Your task to perform on an android device: turn on wifi Image 0: 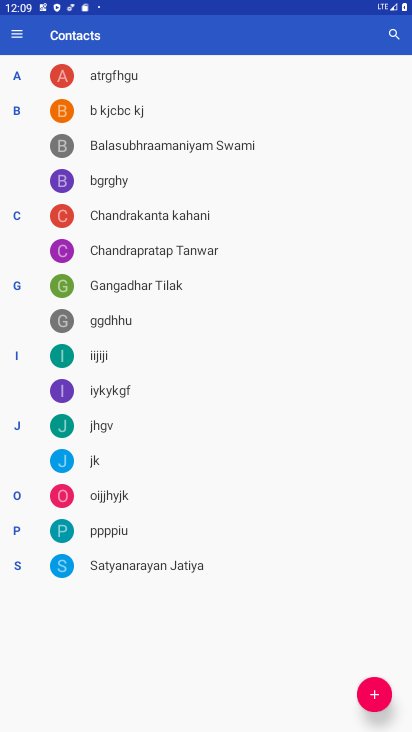
Step 0: press home button
Your task to perform on an android device: turn on wifi Image 1: 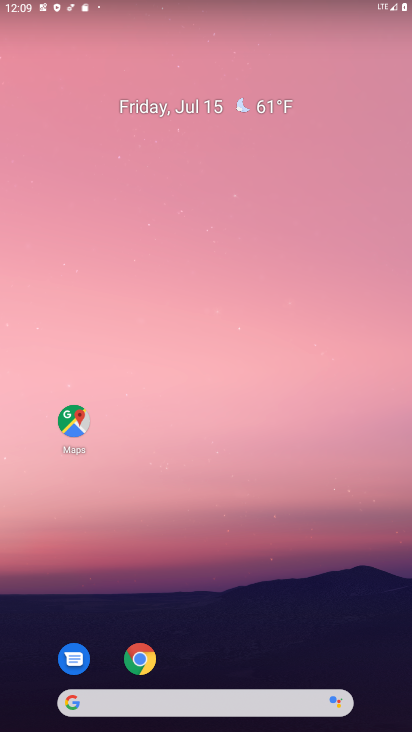
Step 1: drag from (190, 707) to (239, 201)
Your task to perform on an android device: turn on wifi Image 2: 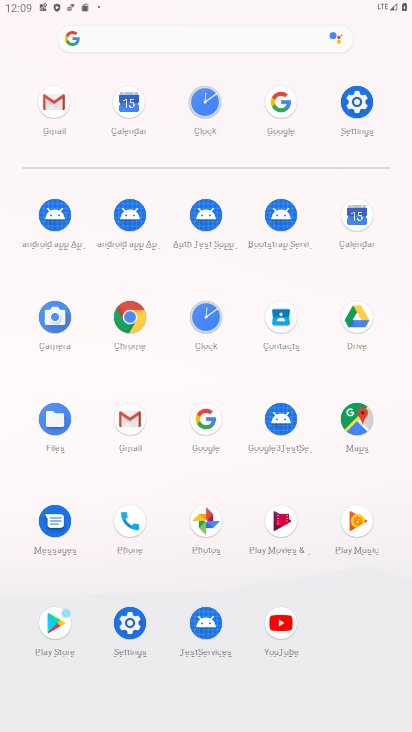
Step 2: click (360, 103)
Your task to perform on an android device: turn on wifi Image 3: 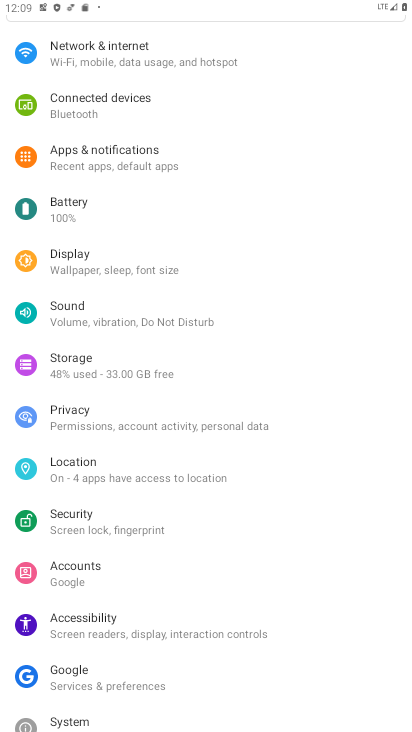
Step 3: click (124, 55)
Your task to perform on an android device: turn on wifi Image 4: 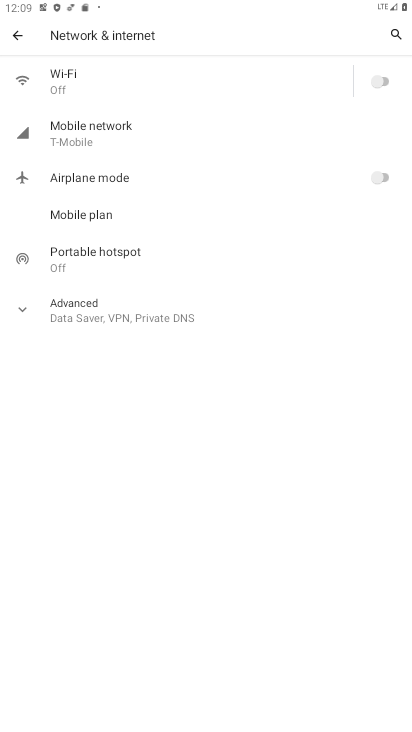
Step 4: click (374, 80)
Your task to perform on an android device: turn on wifi Image 5: 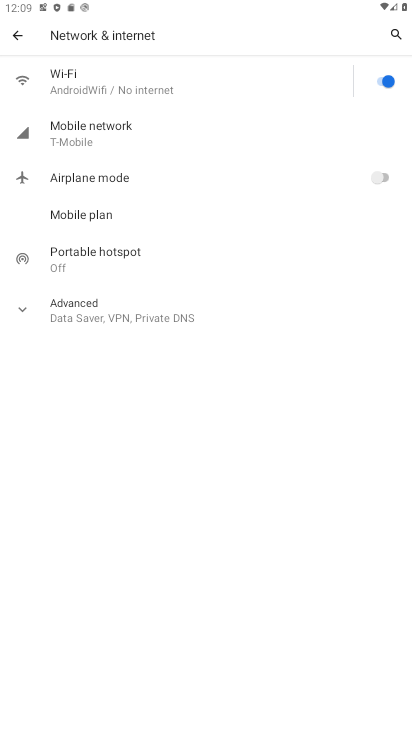
Step 5: task complete